Your task to perform on an android device: Open Google Chrome and click the shortcut for Amazon.com Image 0: 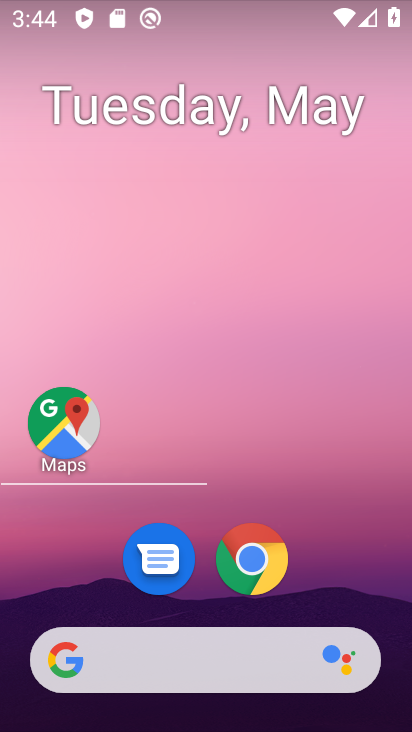
Step 0: press home button
Your task to perform on an android device: Open Google Chrome and click the shortcut for Amazon.com Image 1: 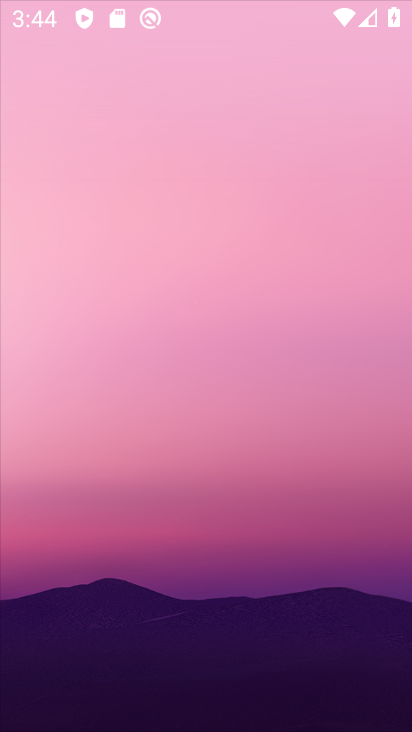
Step 1: click (334, 60)
Your task to perform on an android device: Open Google Chrome and click the shortcut for Amazon.com Image 2: 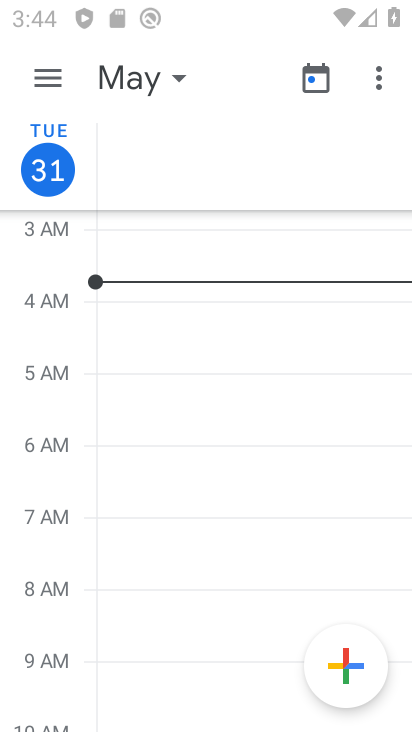
Step 2: press home button
Your task to perform on an android device: Open Google Chrome and click the shortcut for Amazon.com Image 3: 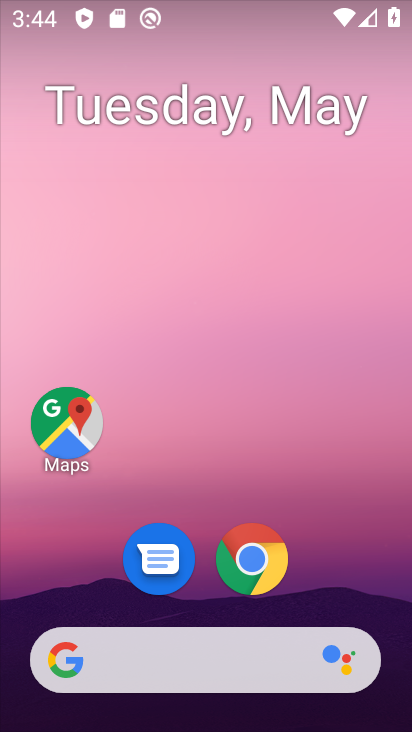
Step 3: click (277, 558)
Your task to perform on an android device: Open Google Chrome and click the shortcut for Amazon.com Image 4: 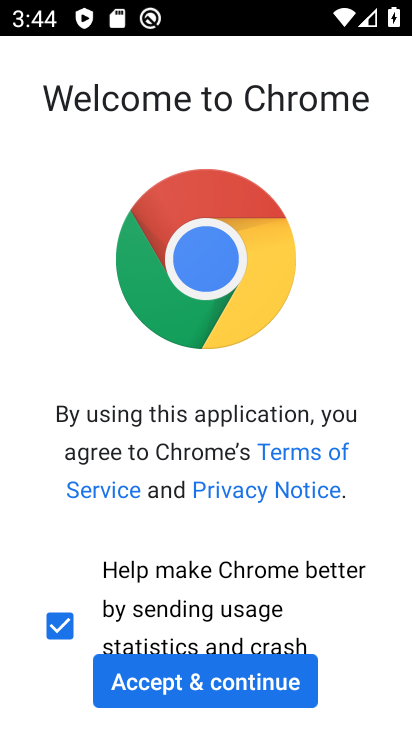
Step 4: click (269, 690)
Your task to perform on an android device: Open Google Chrome and click the shortcut for Amazon.com Image 5: 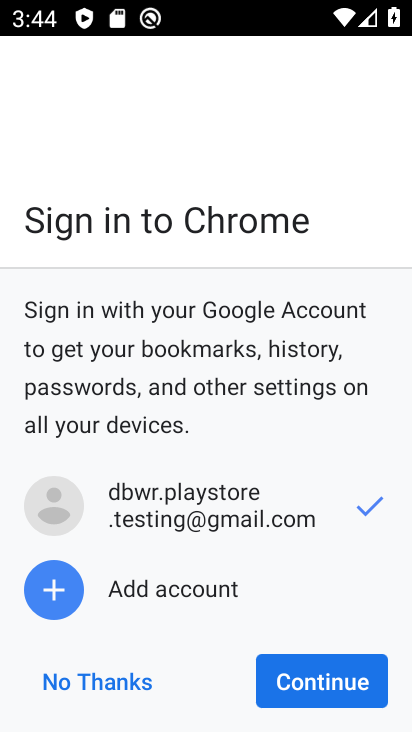
Step 5: click (309, 697)
Your task to perform on an android device: Open Google Chrome and click the shortcut for Amazon.com Image 6: 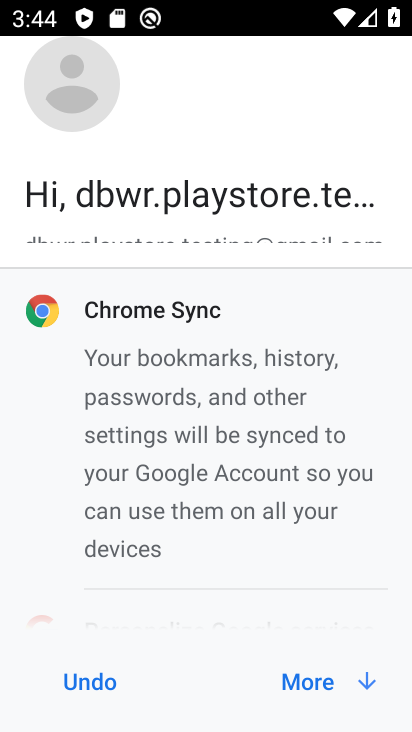
Step 6: click (309, 697)
Your task to perform on an android device: Open Google Chrome and click the shortcut for Amazon.com Image 7: 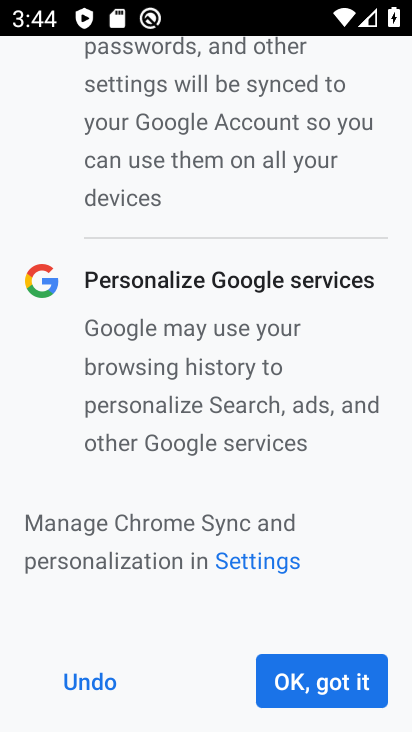
Step 7: click (313, 697)
Your task to perform on an android device: Open Google Chrome and click the shortcut for Amazon.com Image 8: 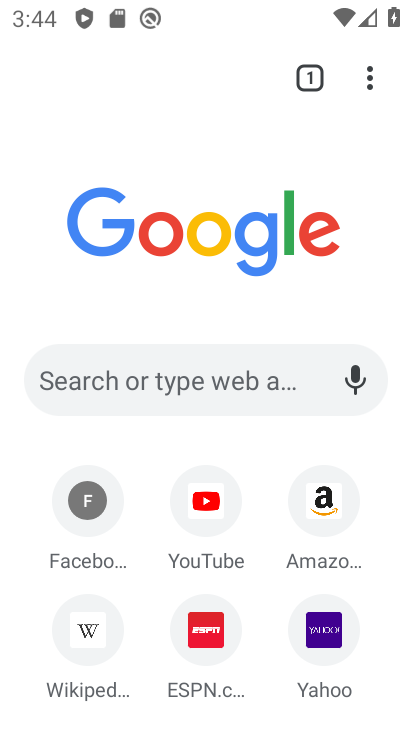
Step 8: click (347, 511)
Your task to perform on an android device: Open Google Chrome and click the shortcut for Amazon.com Image 9: 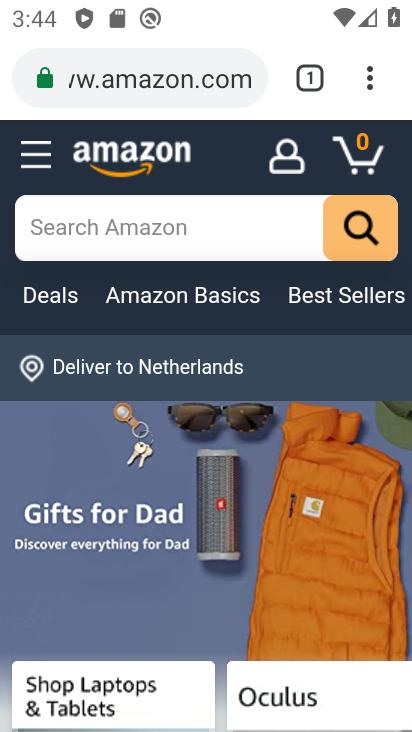
Step 9: task complete